Your task to perform on an android device: turn off translation in the chrome app Image 0: 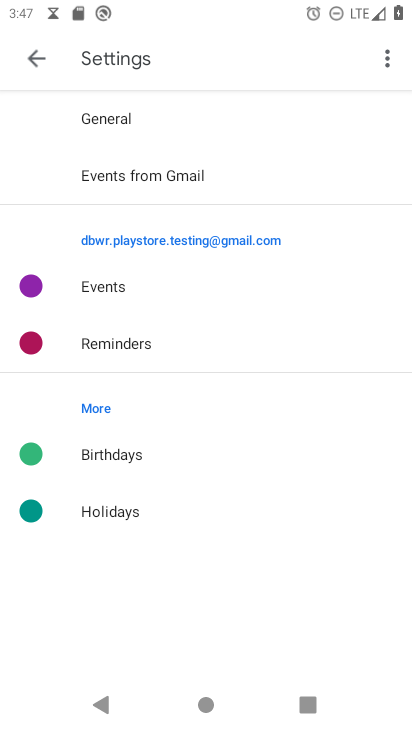
Step 0: press home button
Your task to perform on an android device: turn off translation in the chrome app Image 1: 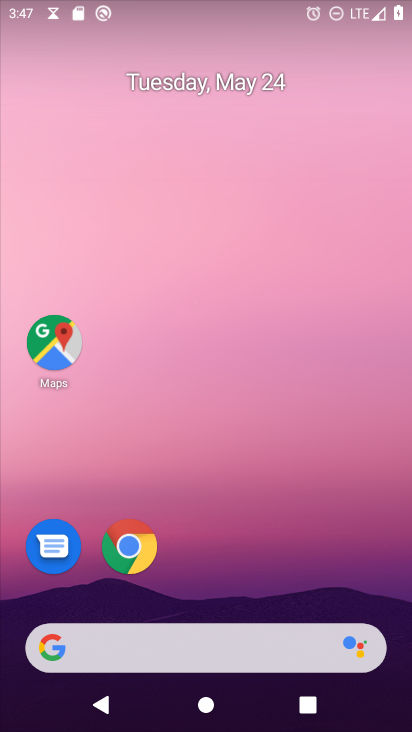
Step 1: drag from (361, 648) to (385, 192)
Your task to perform on an android device: turn off translation in the chrome app Image 2: 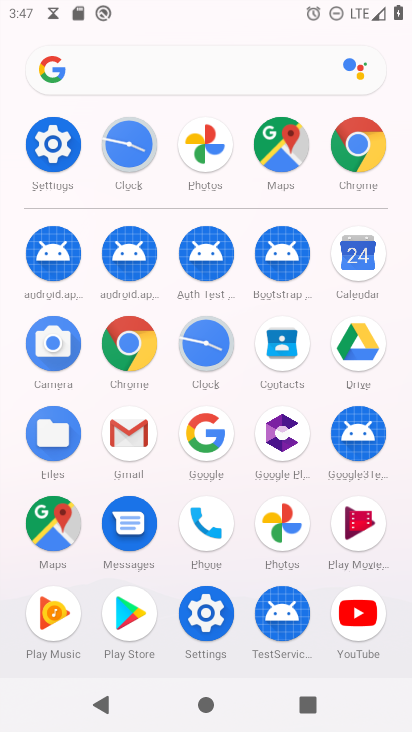
Step 2: click (153, 348)
Your task to perform on an android device: turn off translation in the chrome app Image 3: 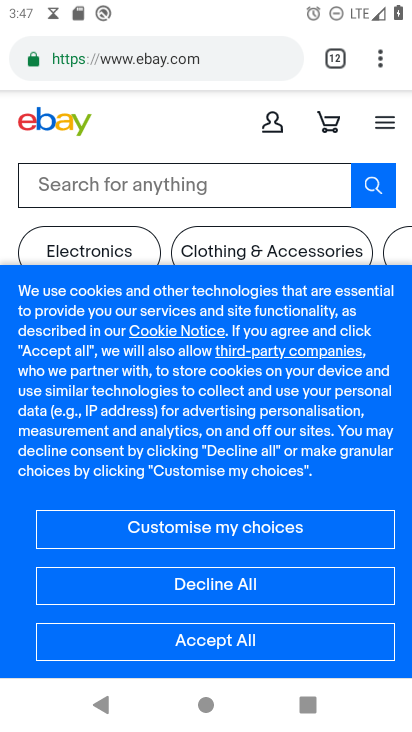
Step 3: drag from (379, 52) to (241, 573)
Your task to perform on an android device: turn off translation in the chrome app Image 4: 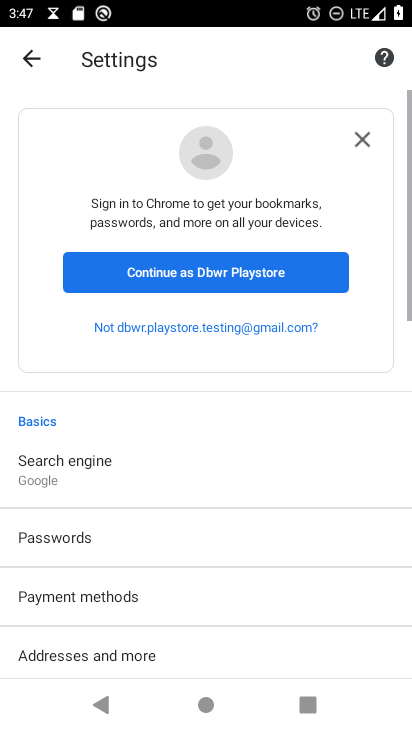
Step 4: drag from (259, 638) to (302, 107)
Your task to perform on an android device: turn off translation in the chrome app Image 5: 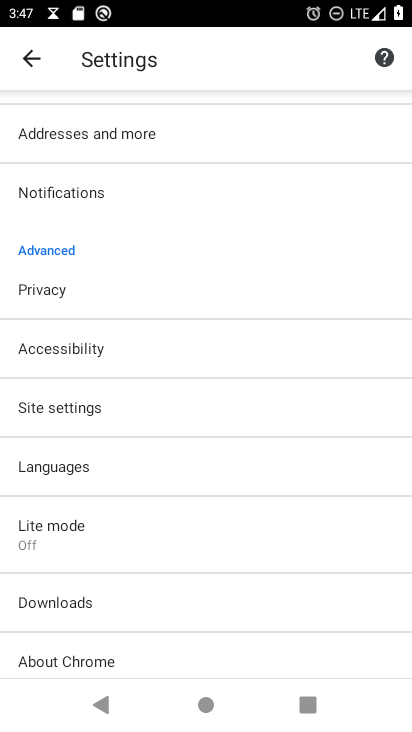
Step 5: click (162, 474)
Your task to perform on an android device: turn off translation in the chrome app Image 6: 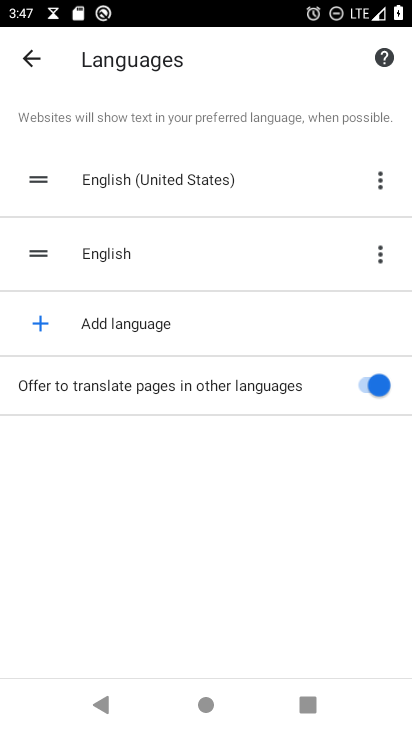
Step 6: click (371, 376)
Your task to perform on an android device: turn off translation in the chrome app Image 7: 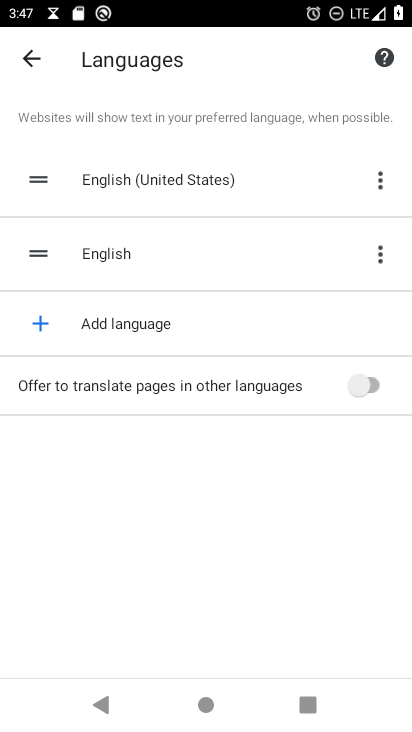
Step 7: task complete